Your task to perform on an android device: turn off data saver in the chrome app Image 0: 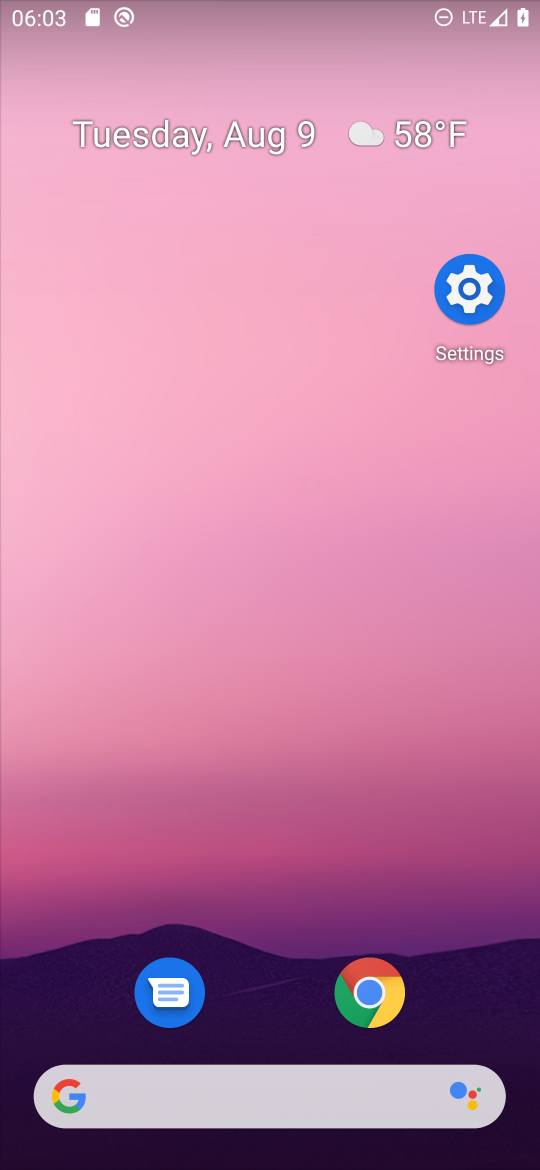
Step 0: drag from (362, 1106) to (381, 66)
Your task to perform on an android device: turn off data saver in the chrome app Image 1: 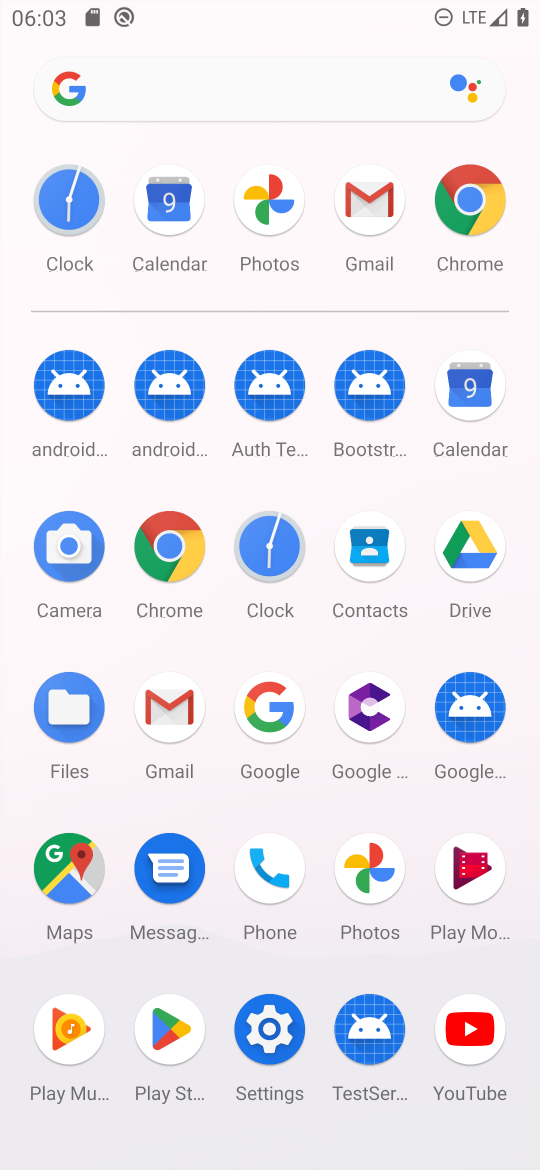
Step 1: click (184, 524)
Your task to perform on an android device: turn off data saver in the chrome app Image 2: 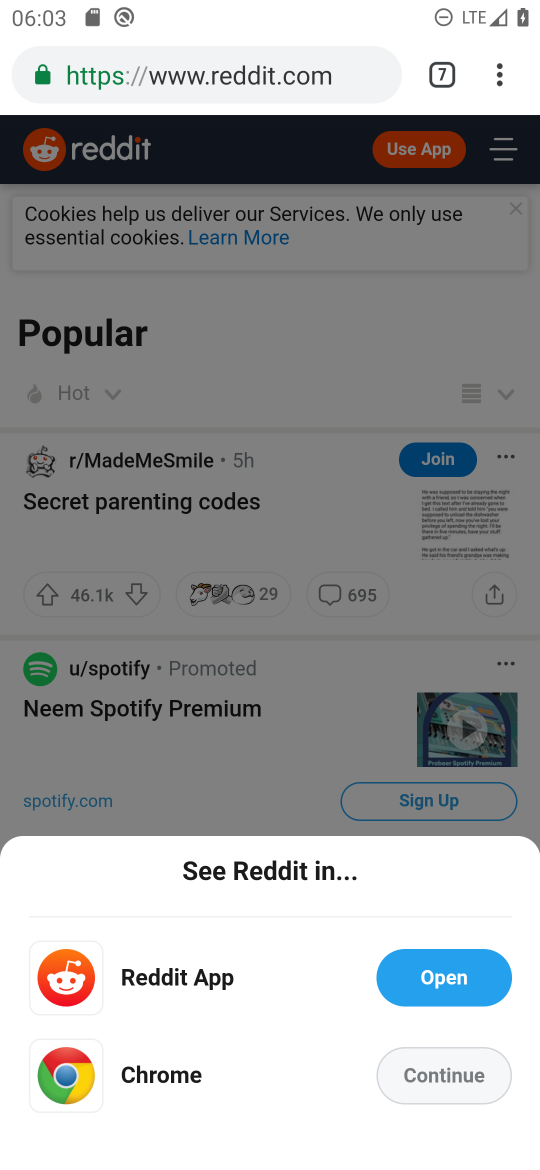
Step 2: click (489, 68)
Your task to perform on an android device: turn off data saver in the chrome app Image 3: 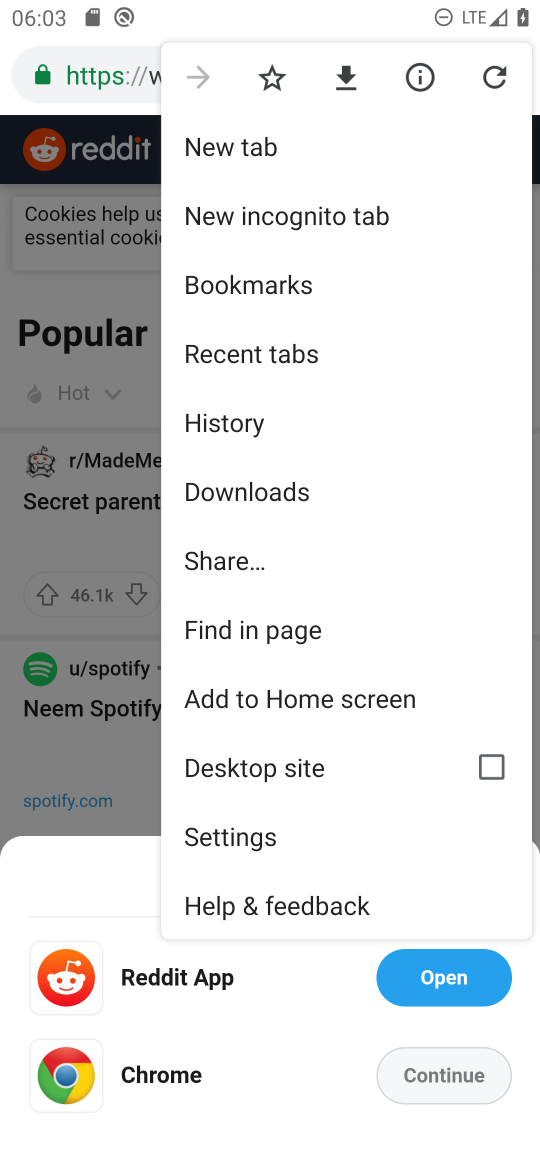
Step 3: click (226, 862)
Your task to perform on an android device: turn off data saver in the chrome app Image 4: 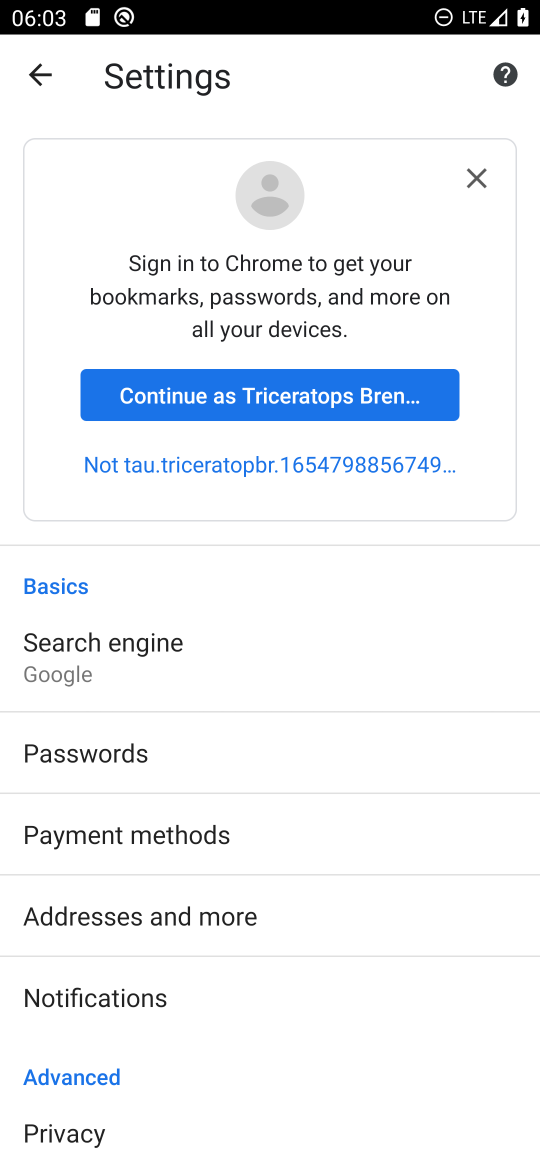
Step 4: drag from (261, 1110) to (284, 550)
Your task to perform on an android device: turn off data saver in the chrome app Image 5: 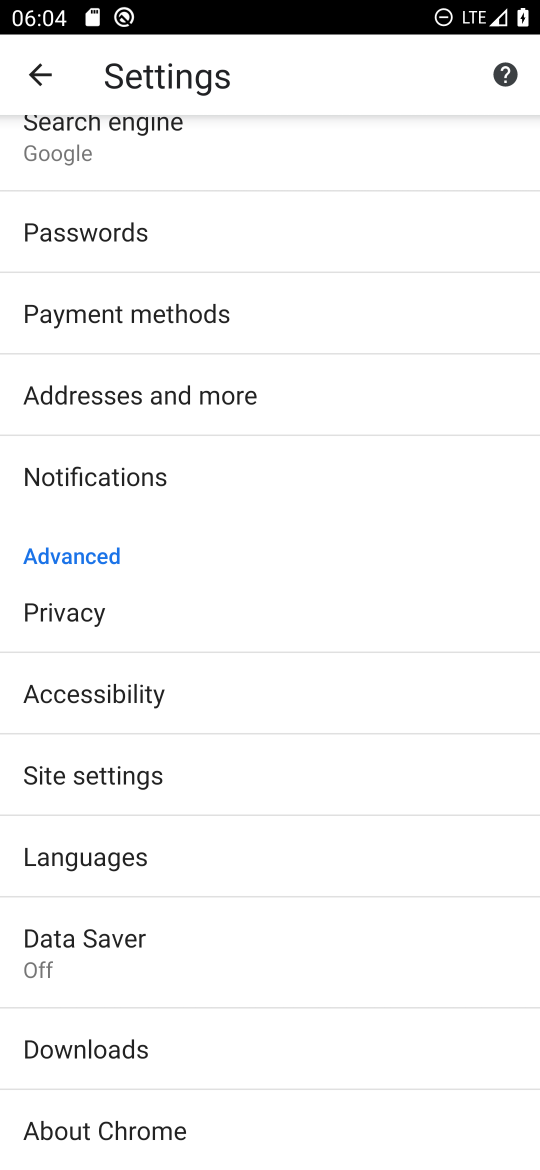
Step 5: press back button
Your task to perform on an android device: turn off data saver in the chrome app Image 6: 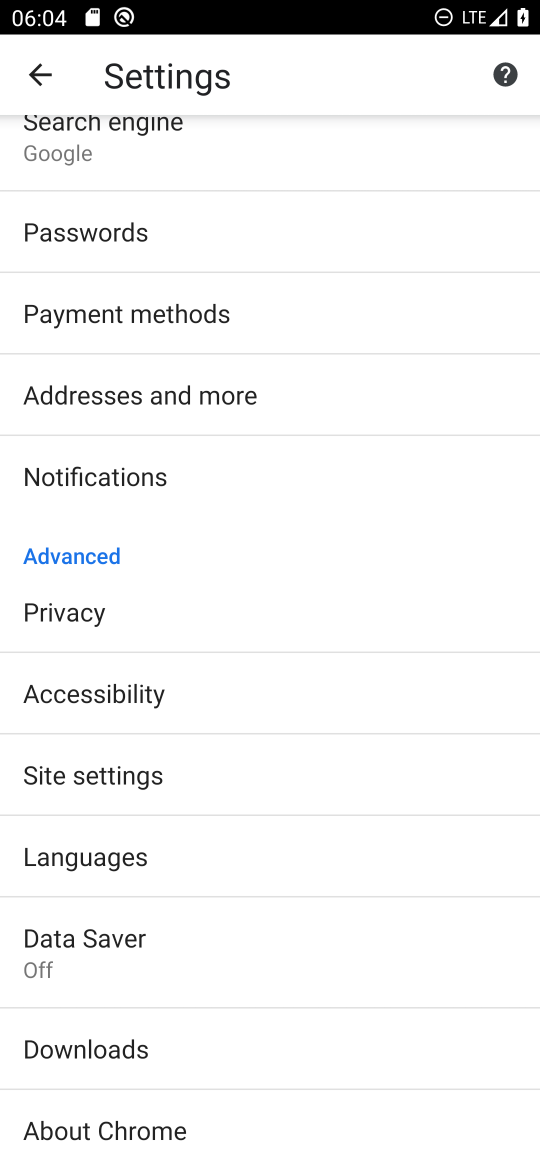
Step 6: press back button
Your task to perform on an android device: turn off data saver in the chrome app Image 7: 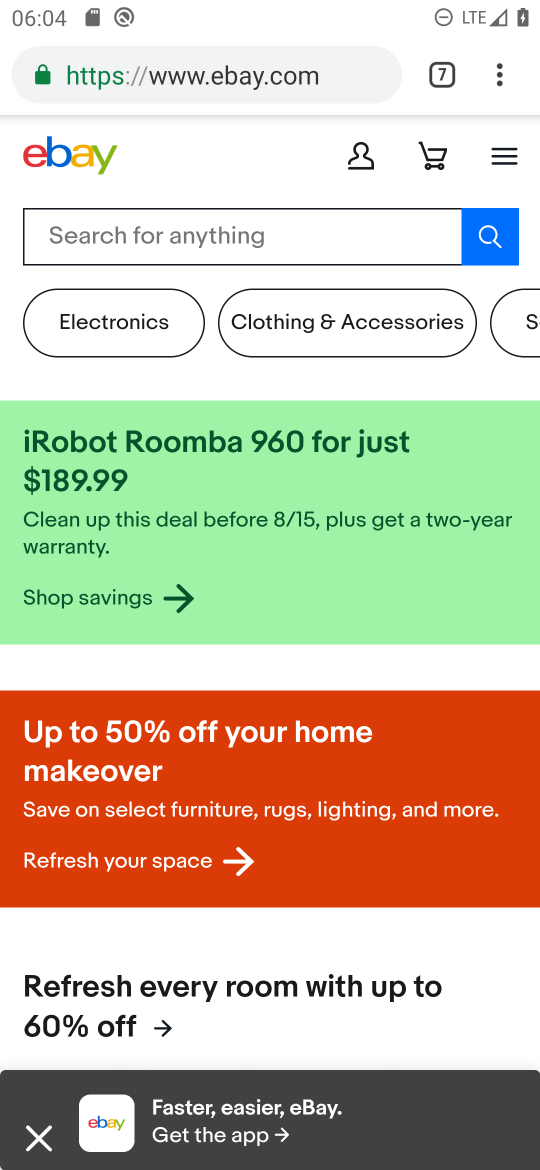
Step 7: press home button
Your task to perform on an android device: turn off data saver in the chrome app Image 8: 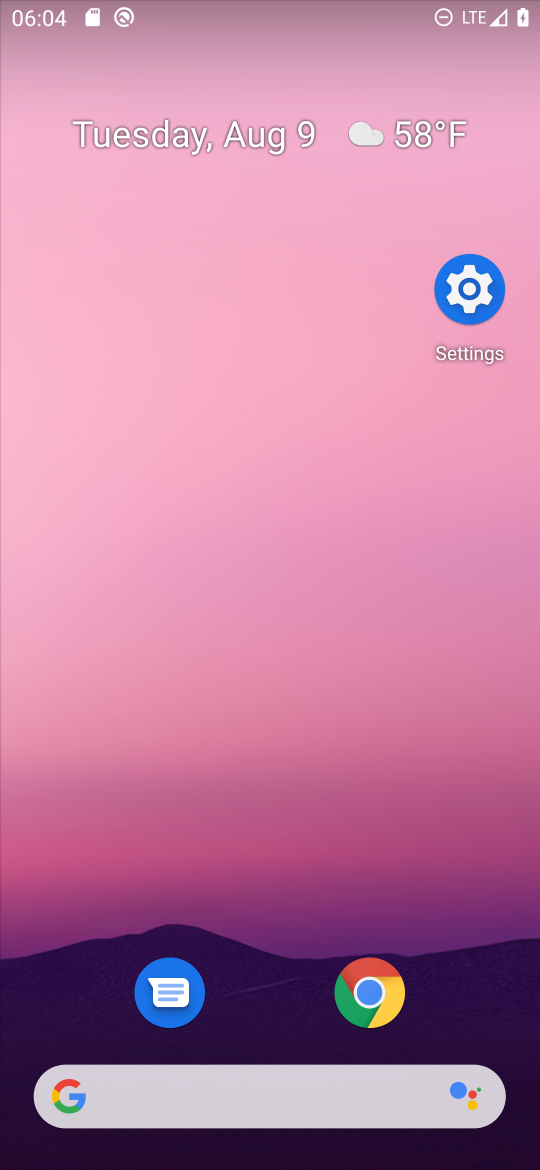
Step 8: drag from (344, 1065) to (502, 1049)
Your task to perform on an android device: turn off data saver in the chrome app Image 9: 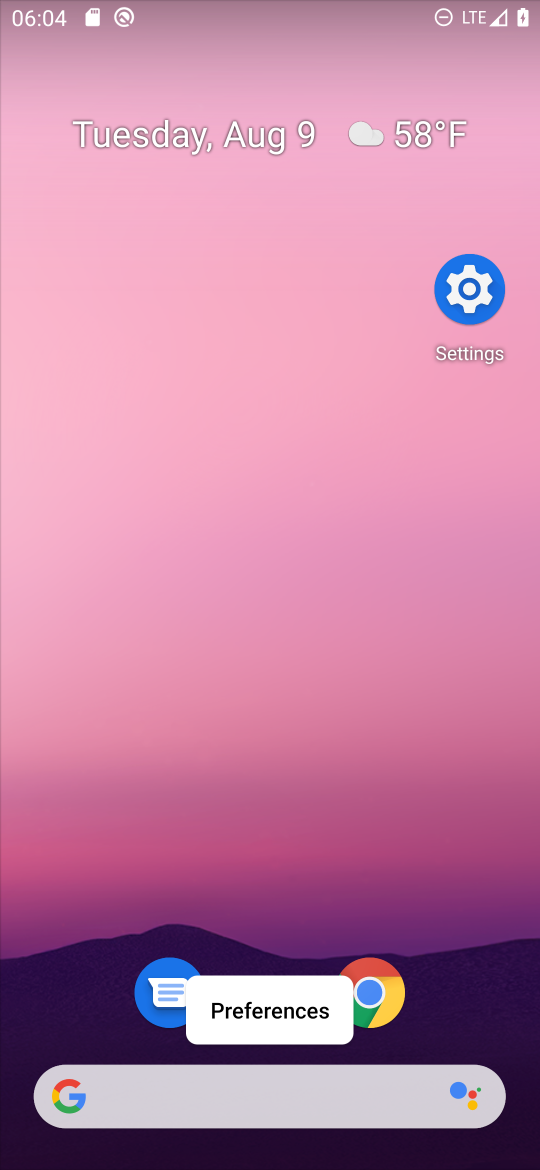
Step 9: drag from (293, 1100) to (465, 0)
Your task to perform on an android device: turn off data saver in the chrome app Image 10: 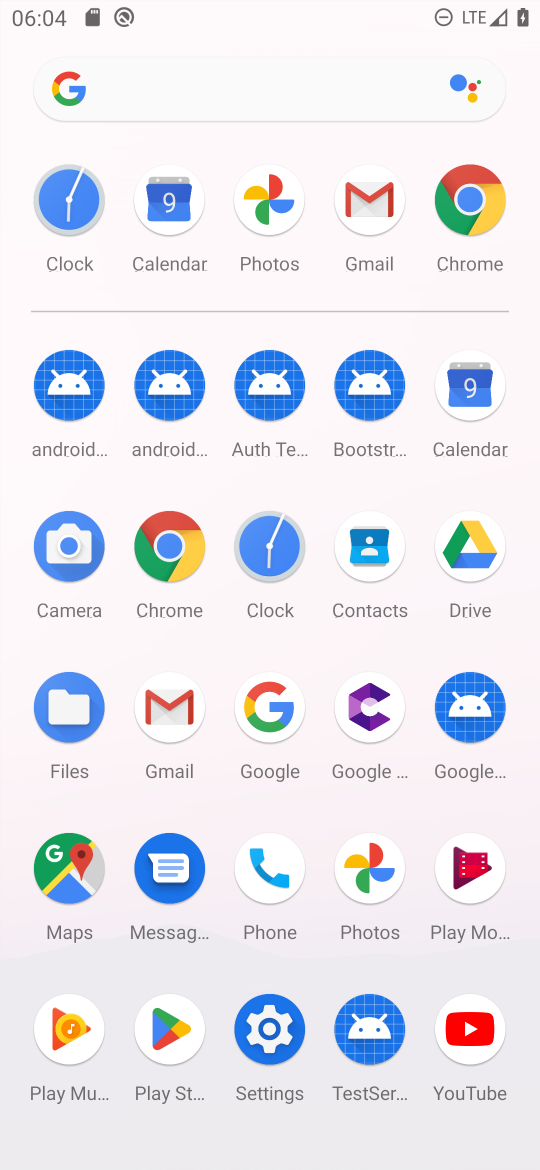
Step 10: click (169, 533)
Your task to perform on an android device: turn off data saver in the chrome app Image 11: 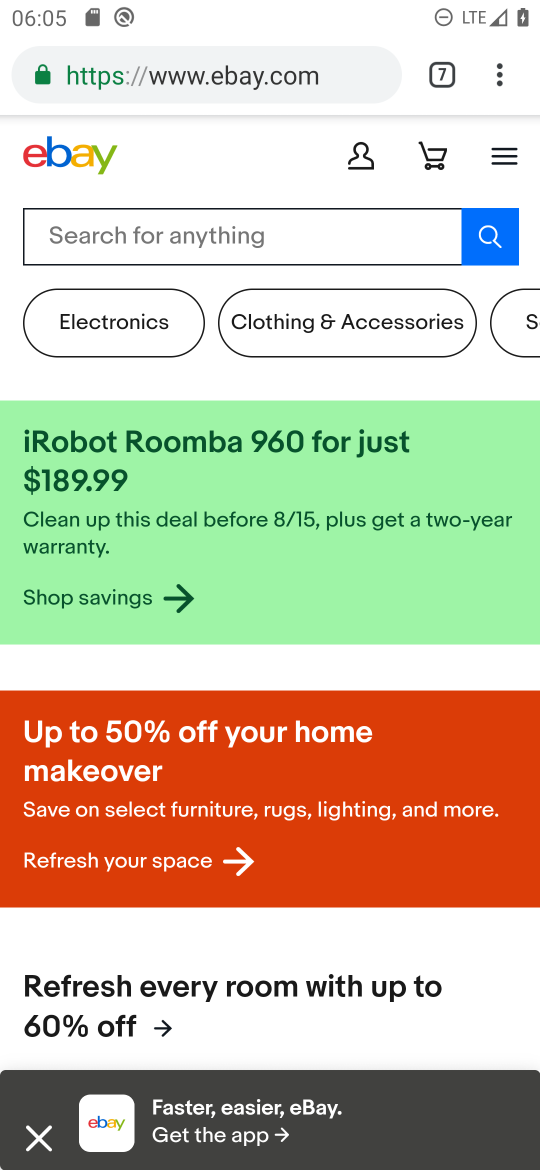
Step 11: click (507, 57)
Your task to perform on an android device: turn off data saver in the chrome app Image 12: 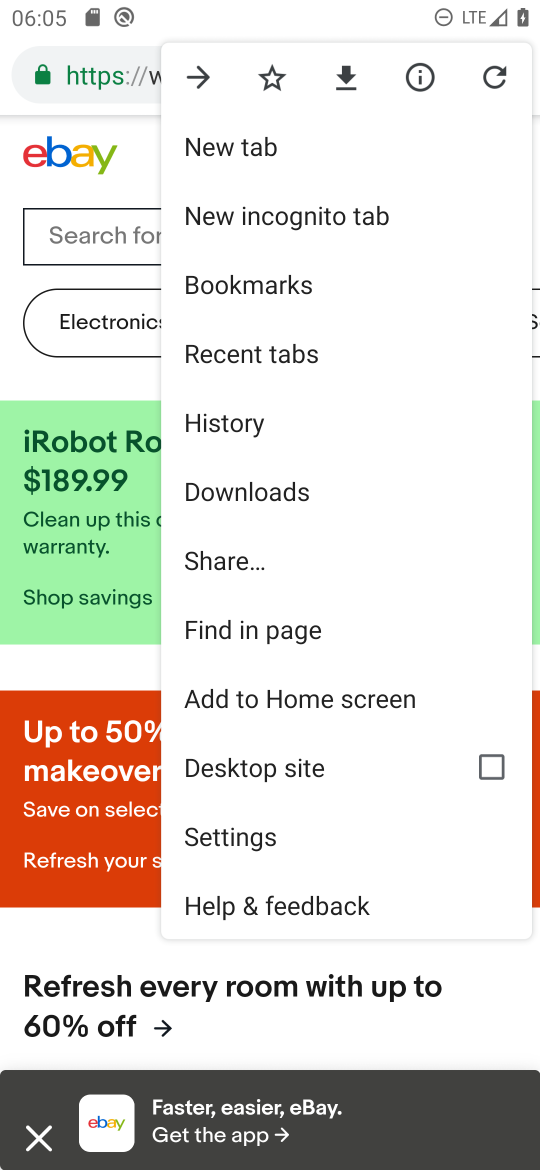
Step 12: click (260, 836)
Your task to perform on an android device: turn off data saver in the chrome app Image 13: 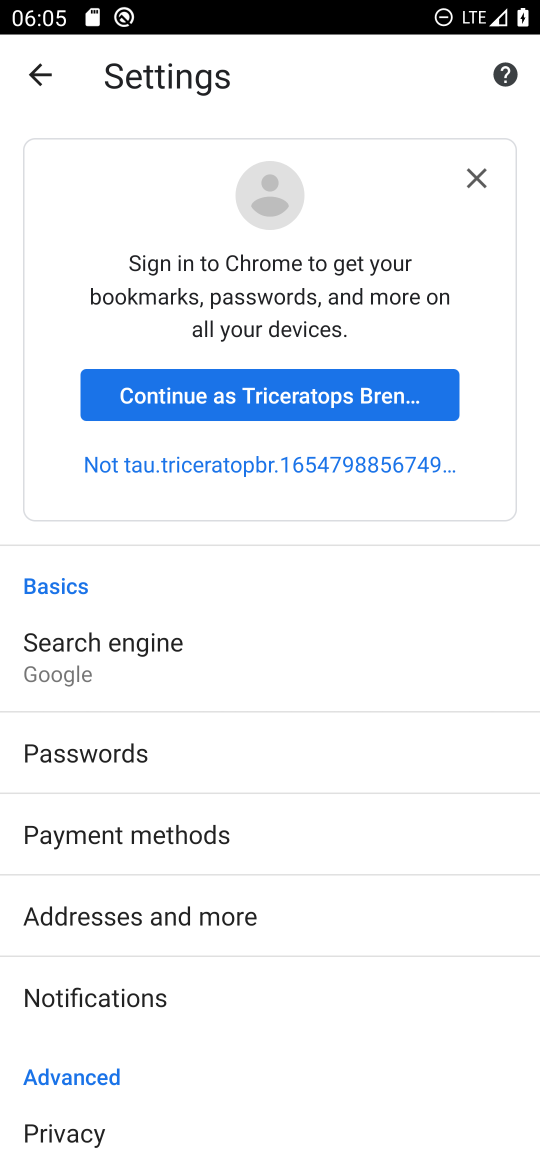
Step 13: drag from (268, 1114) to (419, 331)
Your task to perform on an android device: turn off data saver in the chrome app Image 14: 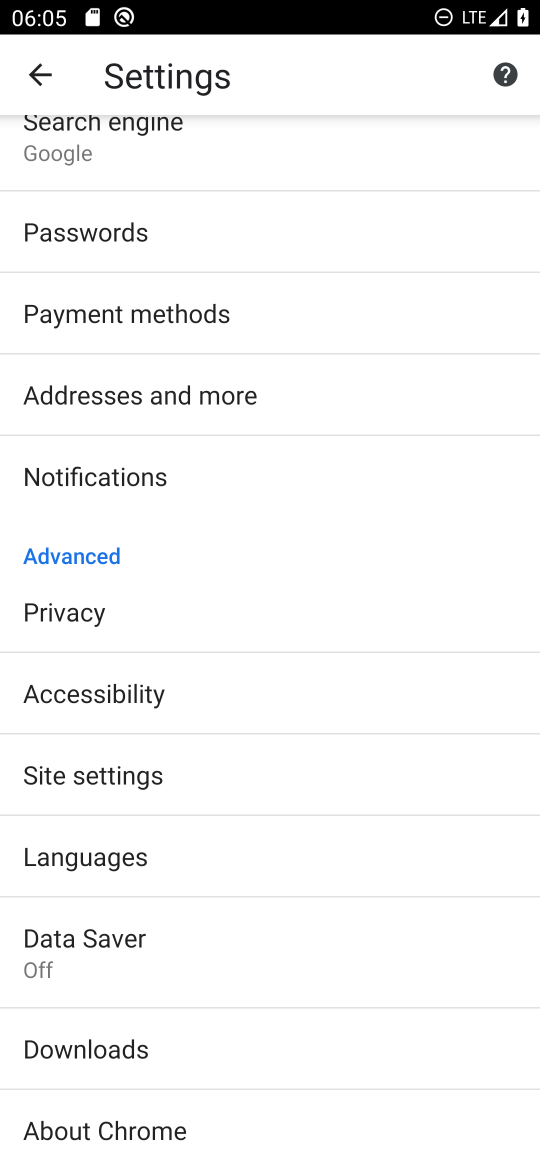
Step 14: click (179, 938)
Your task to perform on an android device: turn off data saver in the chrome app Image 15: 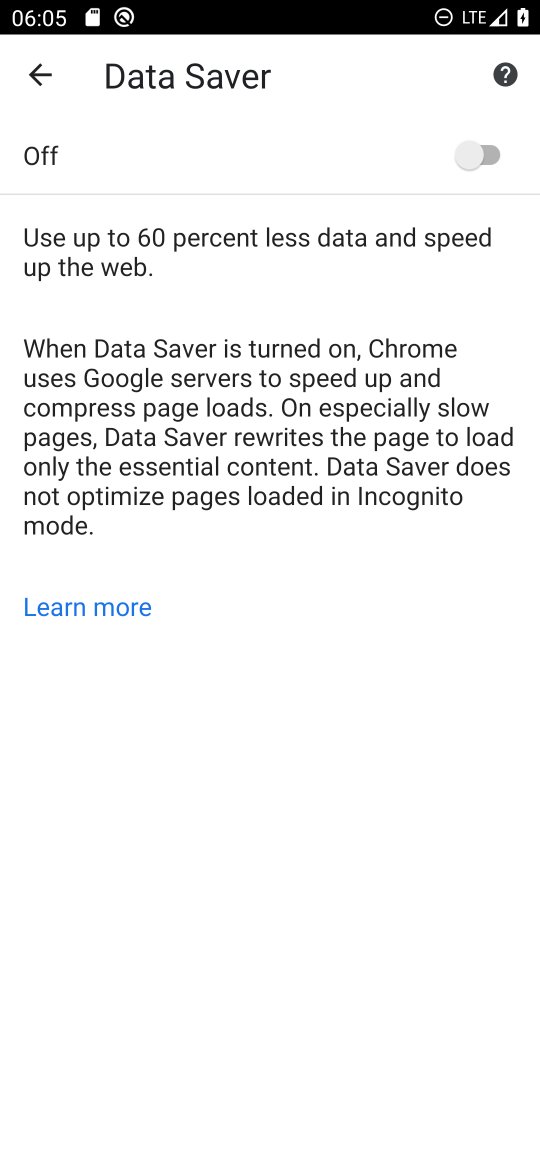
Step 15: task complete